Your task to perform on an android device: open app "Lyft - Rideshare, Bikes, Scooters & Transit" (install if not already installed) Image 0: 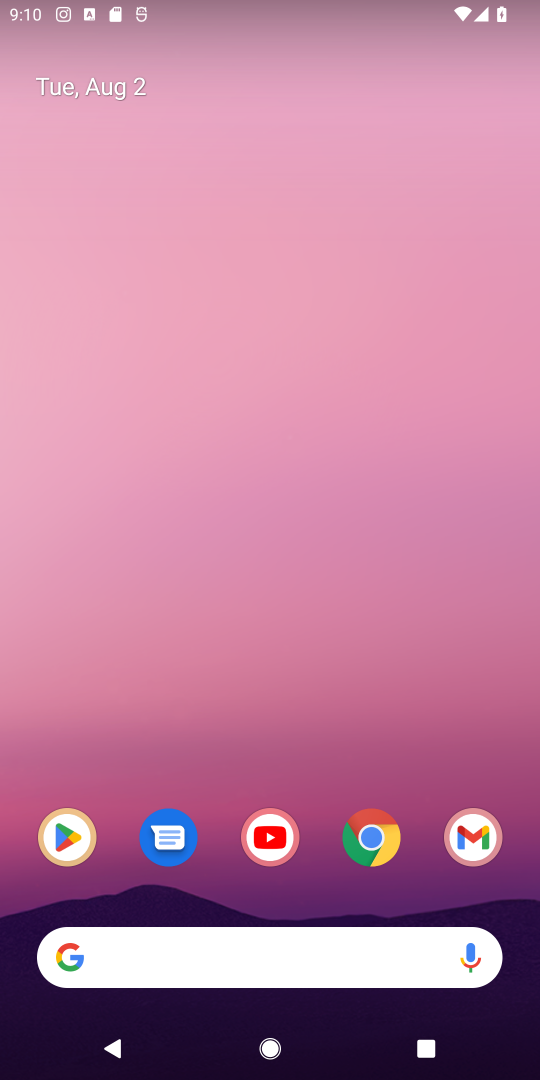
Step 0: click (61, 837)
Your task to perform on an android device: open app "Lyft - Rideshare, Bikes, Scooters & Transit" (install if not already installed) Image 1: 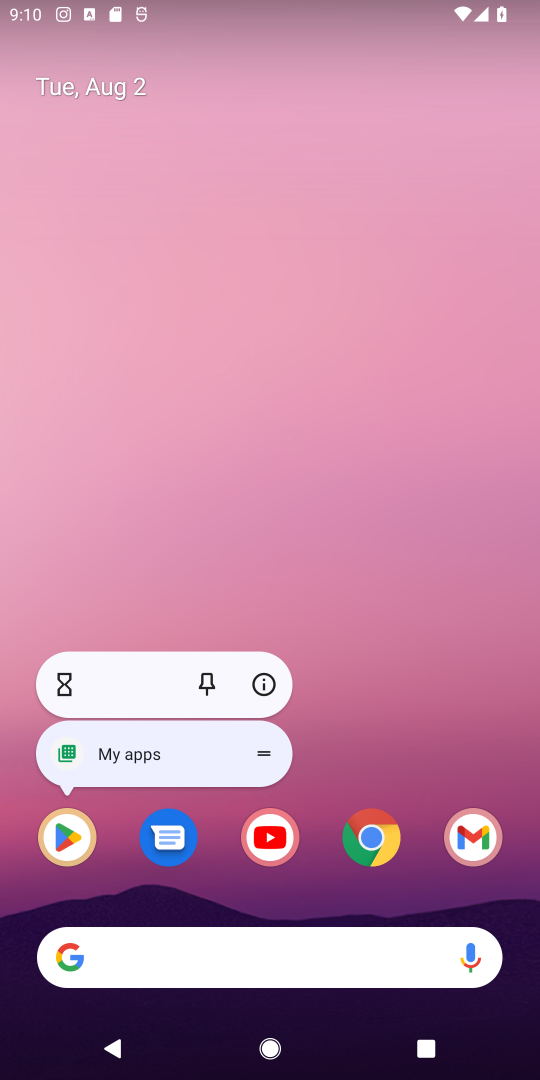
Step 1: click (61, 837)
Your task to perform on an android device: open app "Lyft - Rideshare, Bikes, Scooters & Transit" (install if not already installed) Image 2: 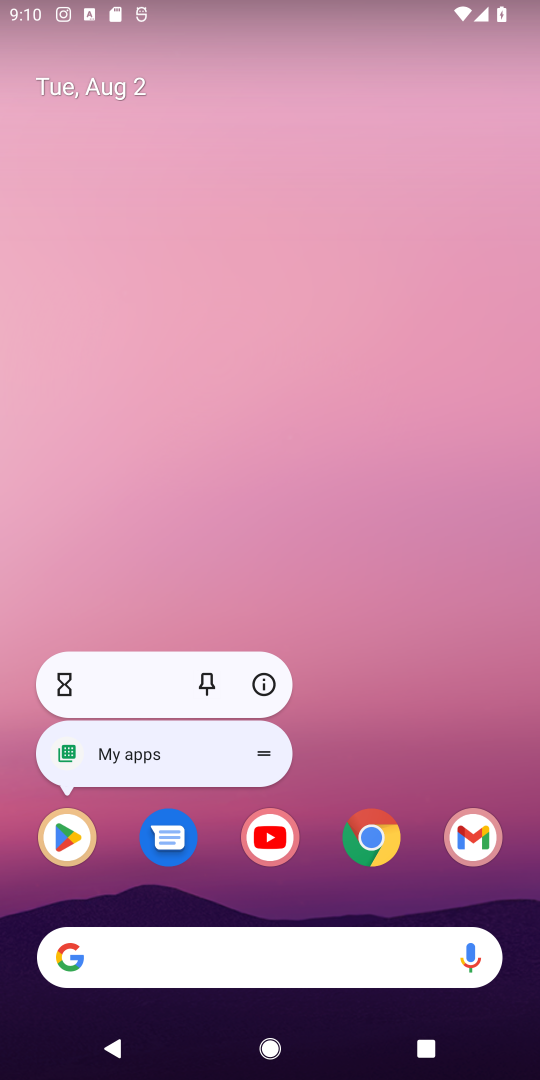
Step 2: click (64, 842)
Your task to perform on an android device: open app "Lyft - Rideshare, Bikes, Scooters & Transit" (install if not already installed) Image 3: 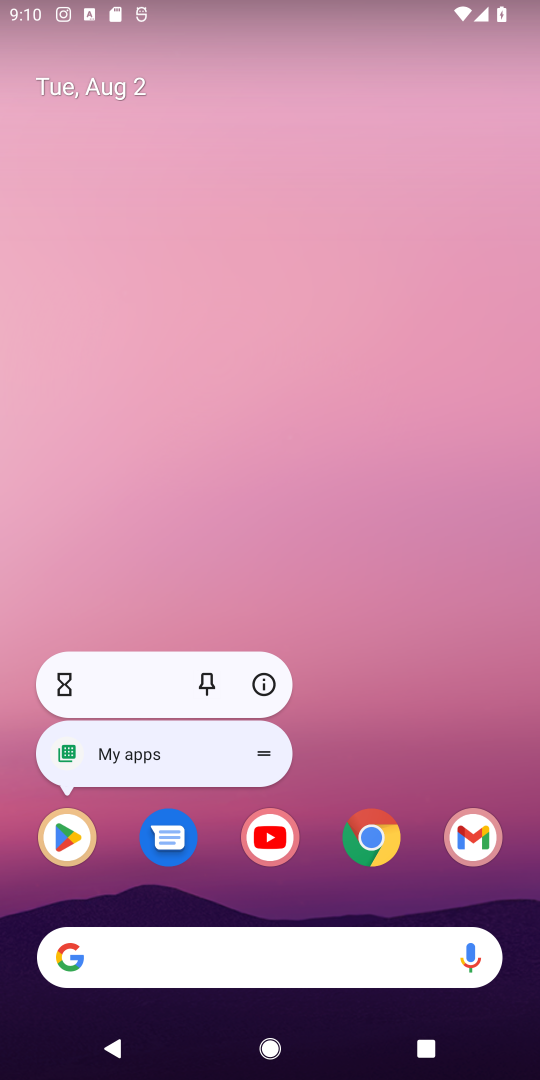
Step 3: click (64, 842)
Your task to perform on an android device: open app "Lyft - Rideshare, Bikes, Scooters & Transit" (install if not already installed) Image 4: 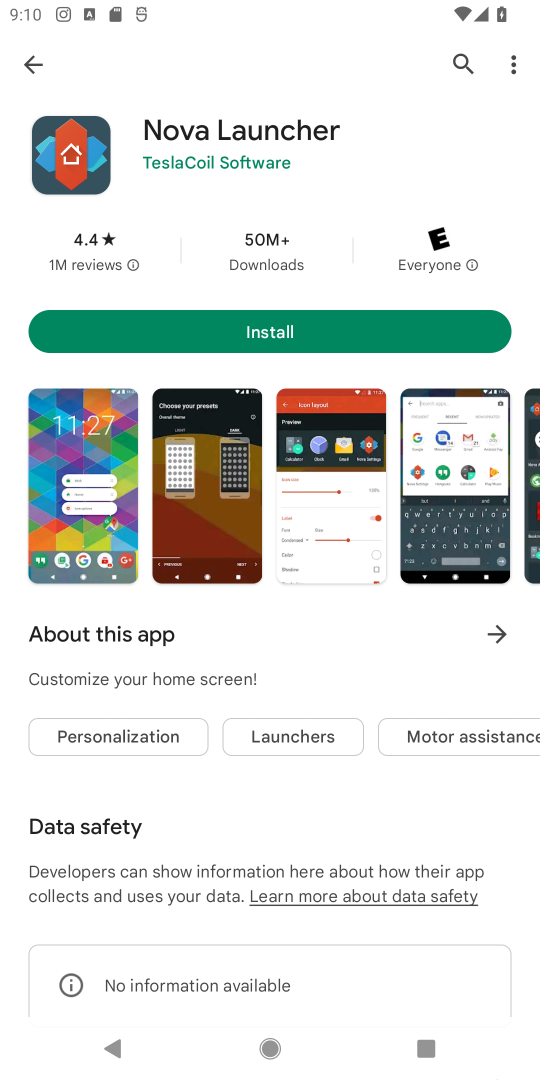
Step 4: click (460, 60)
Your task to perform on an android device: open app "Lyft - Rideshare, Bikes, Scooters & Transit" (install if not already installed) Image 5: 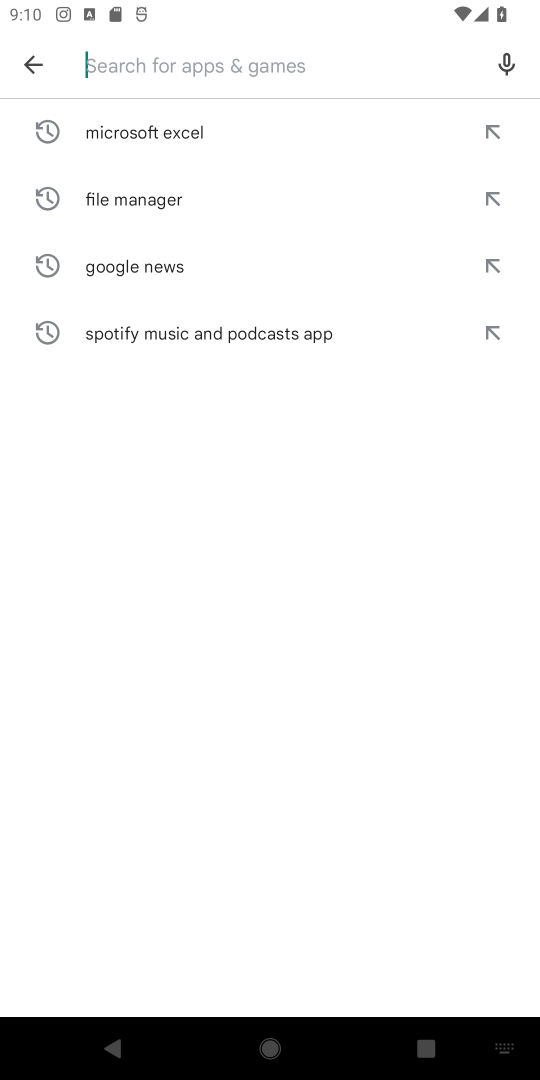
Step 5: type "Lyft - Rideshare, Bikes, Scooters & Transit"
Your task to perform on an android device: open app "Lyft - Rideshare, Bikes, Scooters & Transit" (install if not already installed) Image 6: 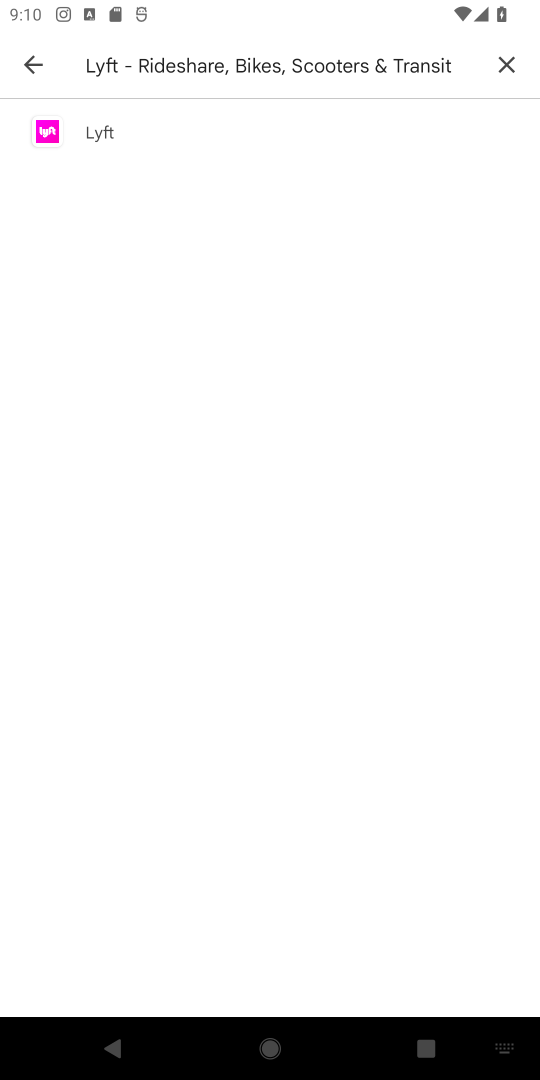
Step 6: click (92, 144)
Your task to perform on an android device: open app "Lyft - Rideshare, Bikes, Scooters & Transit" (install if not already installed) Image 7: 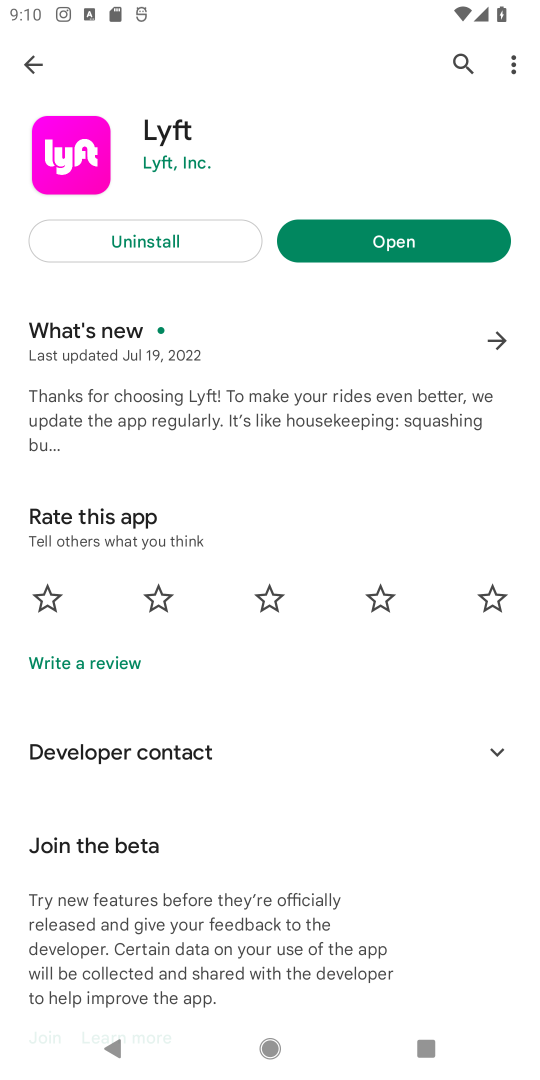
Step 7: click (390, 244)
Your task to perform on an android device: open app "Lyft - Rideshare, Bikes, Scooters & Transit" (install if not already installed) Image 8: 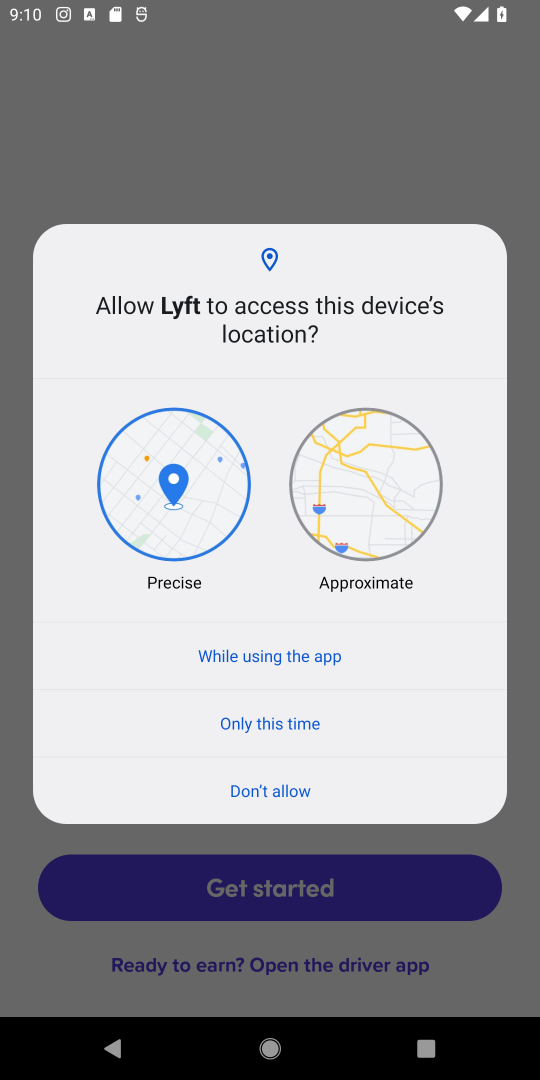
Step 8: task complete